Your task to perform on an android device: Open network settings Image 0: 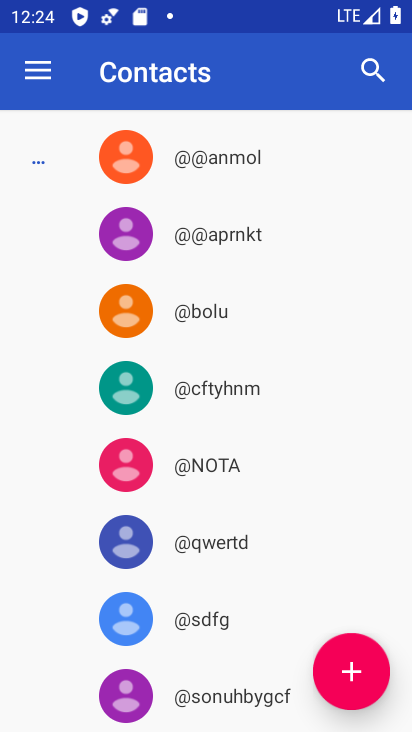
Step 0: drag from (197, 627) to (197, 454)
Your task to perform on an android device: Open network settings Image 1: 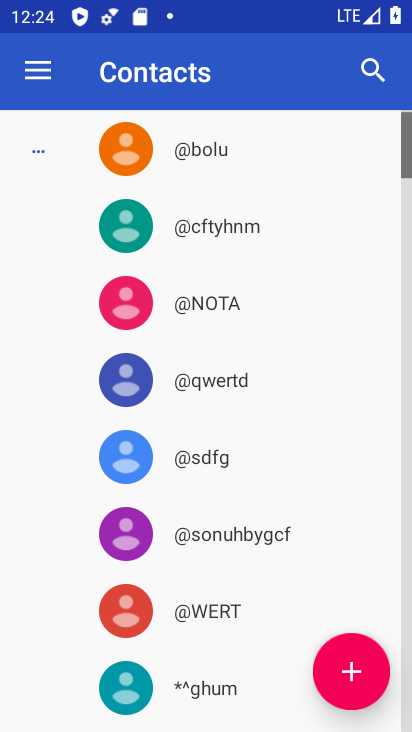
Step 1: press home button
Your task to perform on an android device: Open network settings Image 2: 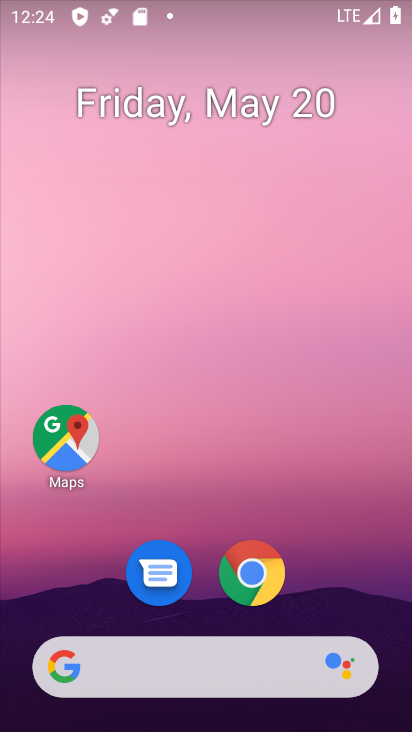
Step 2: drag from (195, 587) to (267, 184)
Your task to perform on an android device: Open network settings Image 3: 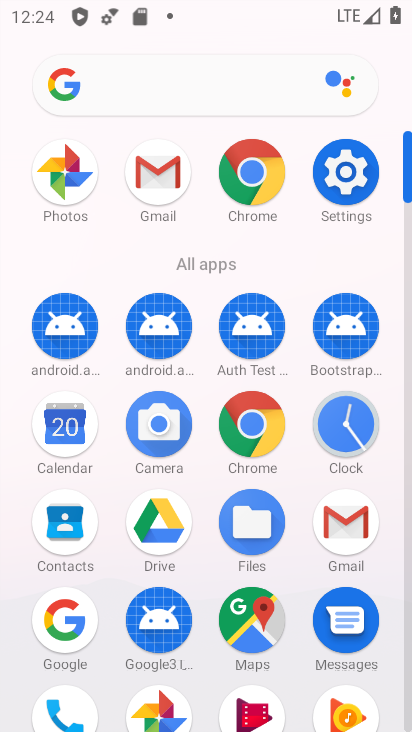
Step 3: click (352, 196)
Your task to perform on an android device: Open network settings Image 4: 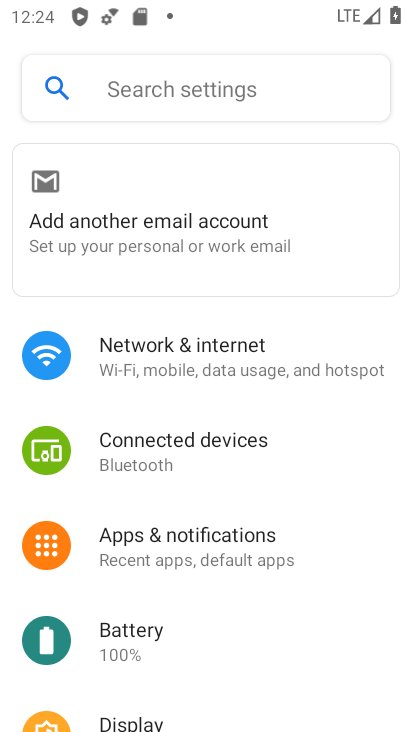
Step 4: click (229, 382)
Your task to perform on an android device: Open network settings Image 5: 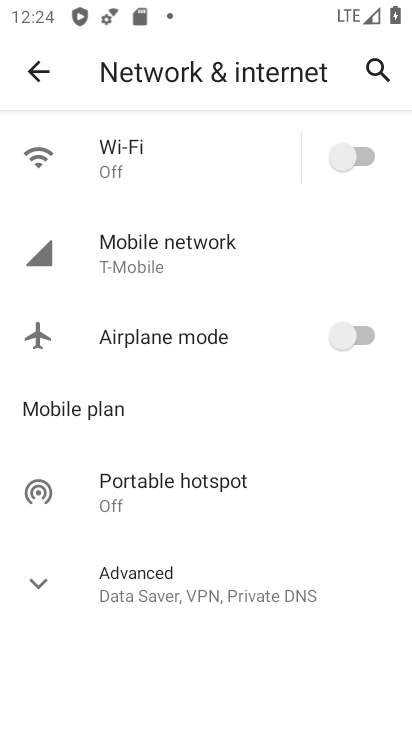
Step 5: task complete